Your task to perform on an android device: Open Google Chrome and click the shortcut for Amazon.com Image 0: 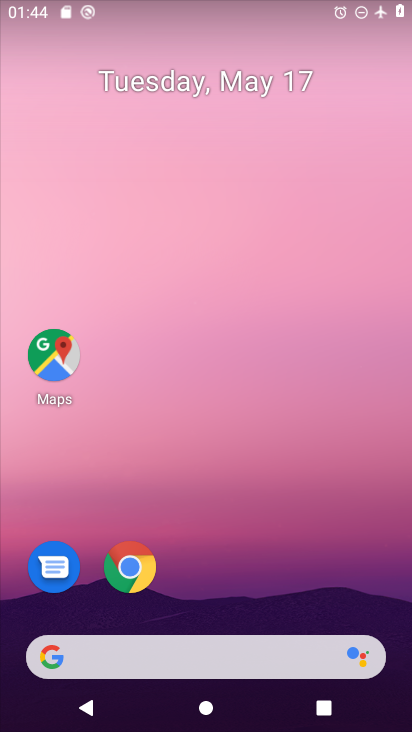
Step 0: click (135, 572)
Your task to perform on an android device: Open Google Chrome and click the shortcut for Amazon.com Image 1: 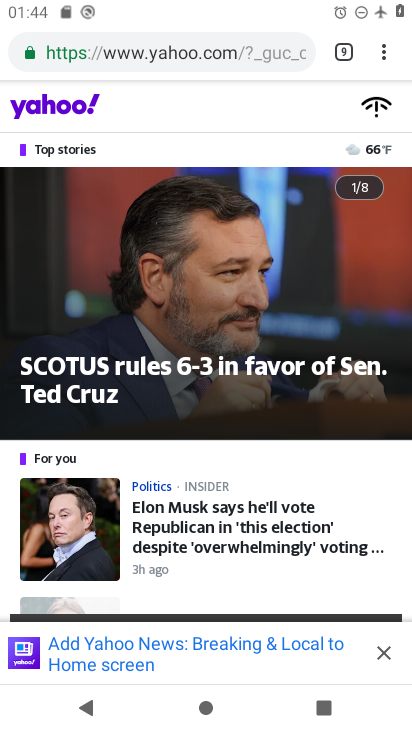
Step 1: click (385, 47)
Your task to perform on an android device: Open Google Chrome and click the shortcut for Amazon.com Image 2: 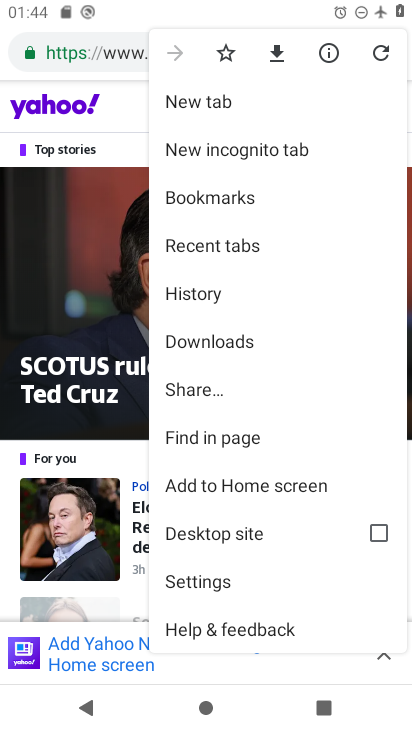
Step 2: click (220, 97)
Your task to perform on an android device: Open Google Chrome and click the shortcut for Amazon.com Image 3: 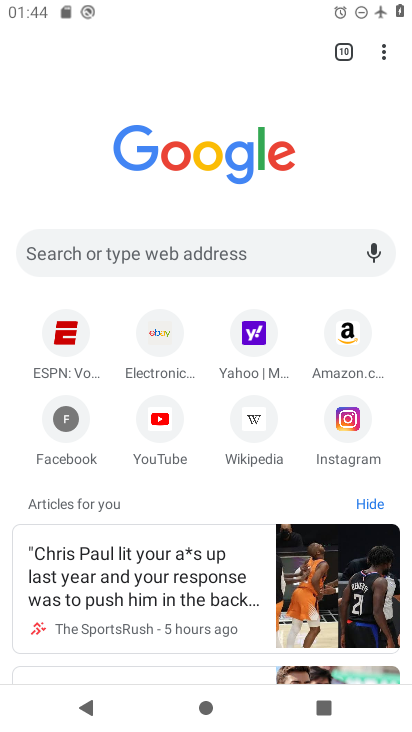
Step 3: click (338, 337)
Your task to perform on an android device: Open Google Chrome and click the shortcut for Amazon.com Image 4: 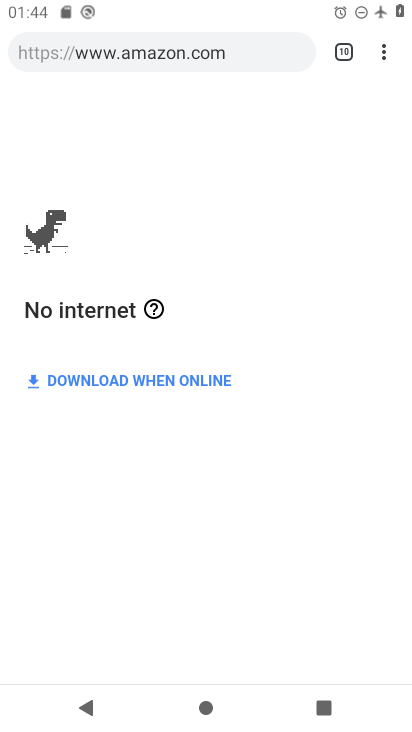
Step 4: task complete